Your task to perform on an android device: turn on notifications settings in the gmail app Image 0: 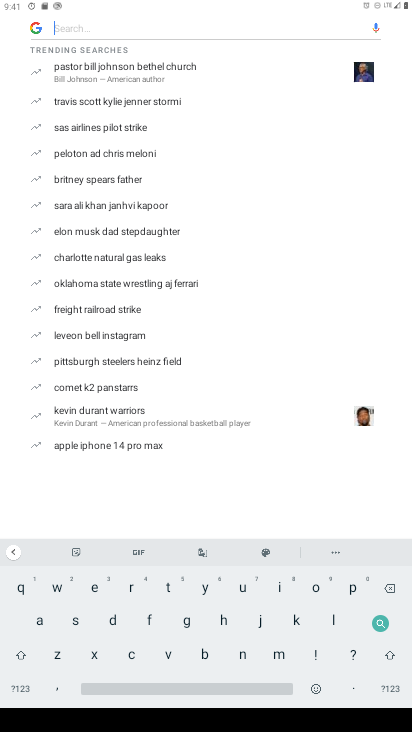
Step 0: press home button
Your task to perform on an android device: turn on notifications settings in the gmail app Image 1: 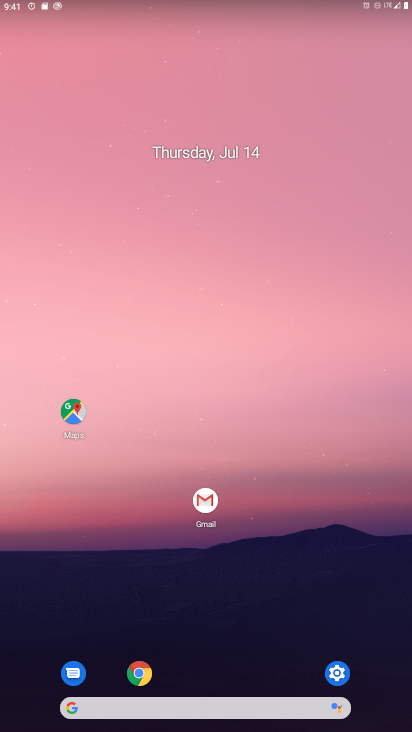
Step 1: click (212, 489)
Your task to perform on an android device: turn on notifications settings in the gmail app Image 2: 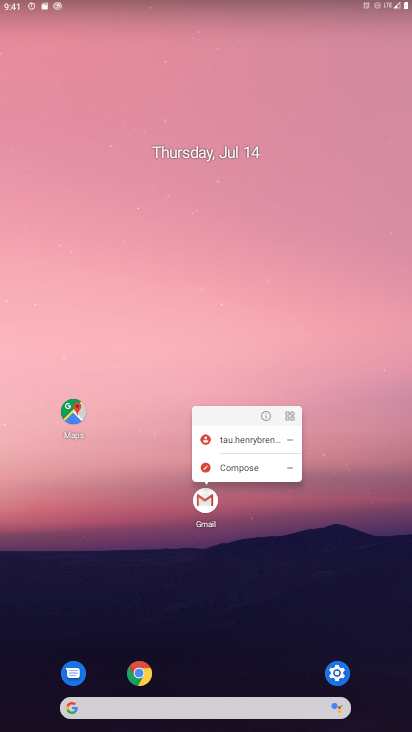
Step 2: click (212, 488)
Your task to perform on an android device: turn on notifications settings in the gmail app Image 3: 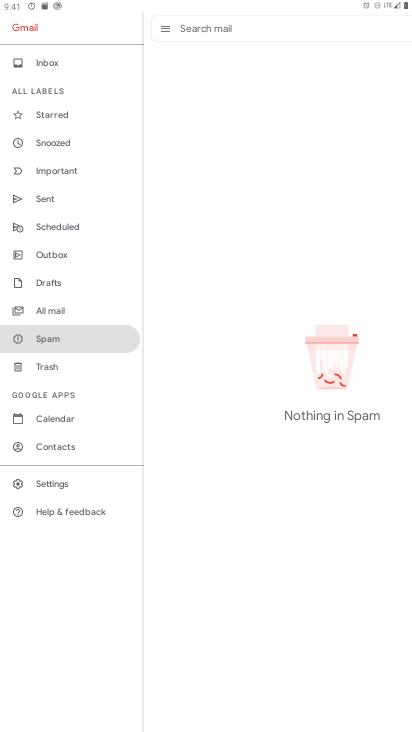
Step 3: click (50, 484)
Your task to perform on an android device: turn on notifications settings in the gmail app Image 4: 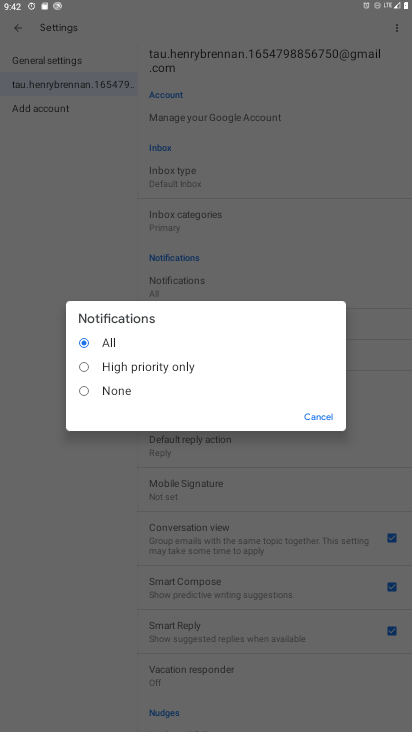
Step 4: task complete